Your task to perform on an android device: Open accessibility settings Image 0: 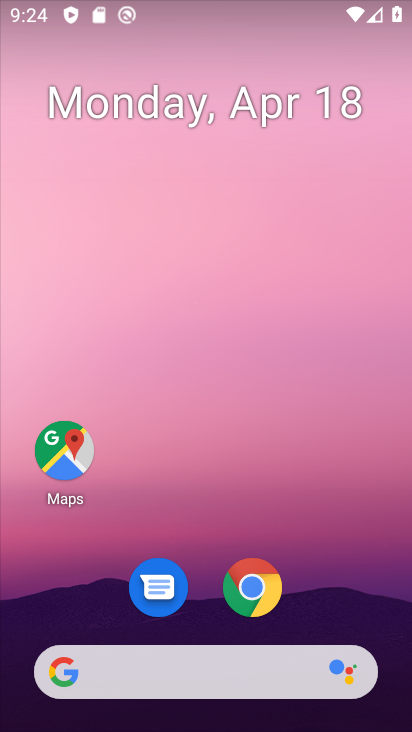
Step 0: drag from (205, 695) to (206, 85)
Your task to perform on an android device: Open accessibility settings Image 1: 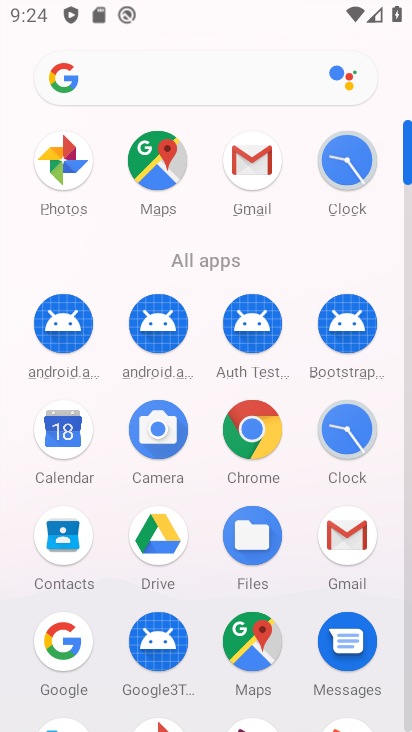
Step 1: drag from (206, 602) to (198, 212)
Your task to perform on an android device: Open accessibility settings Image 2: 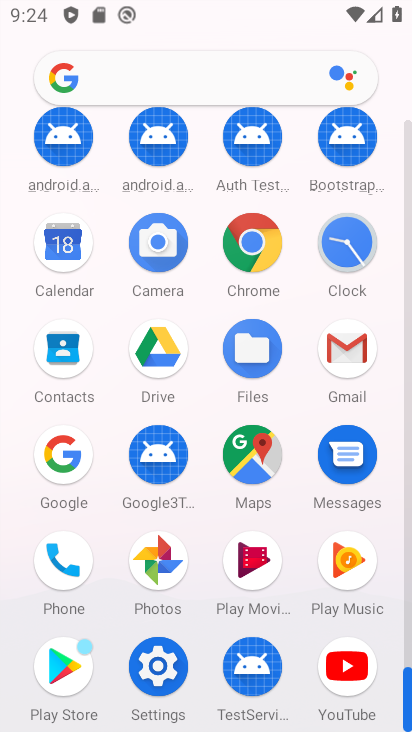
Step 2: click (160, 657)
Your task to perform on an android device: Open accessibility settings Image 3: 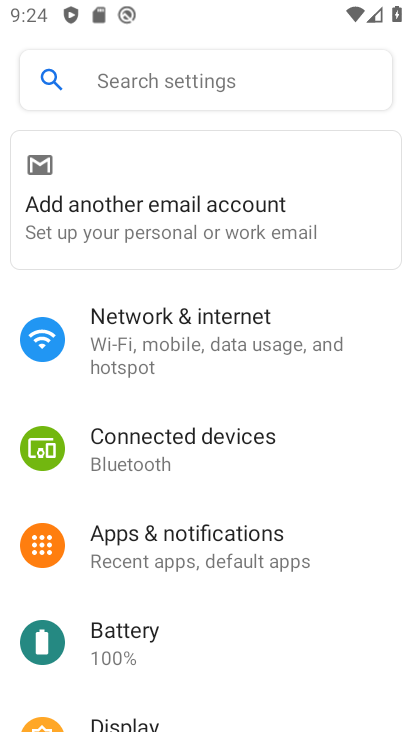
Step 3: drag from (204, 631) to (219, 175)
Your task to perform on an android device: Open accessibility settings Image 4: 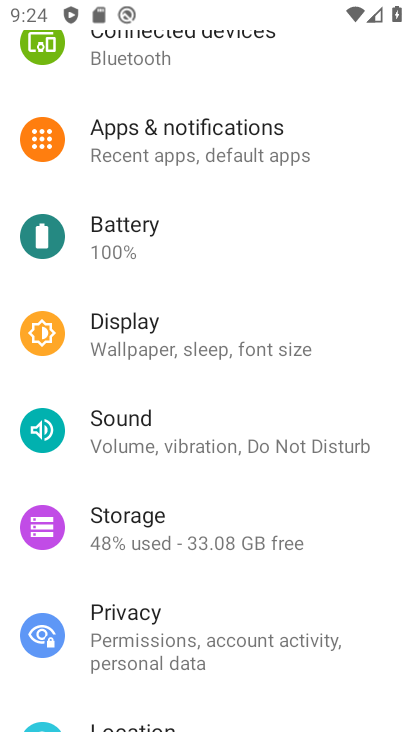
Step 4: drag from (174, 669) to (183, 261)
Your task to perform on an android device: Open accessibility settings Image 5: 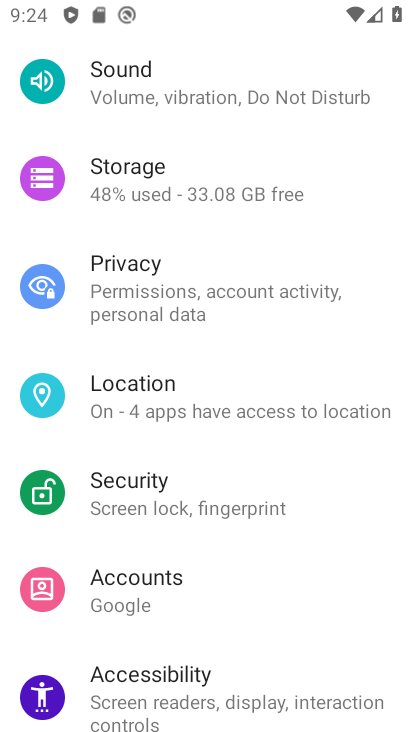
Step 5: click (161, 680)
Your task to perform on an android device: Open accessibility settings Image 6: 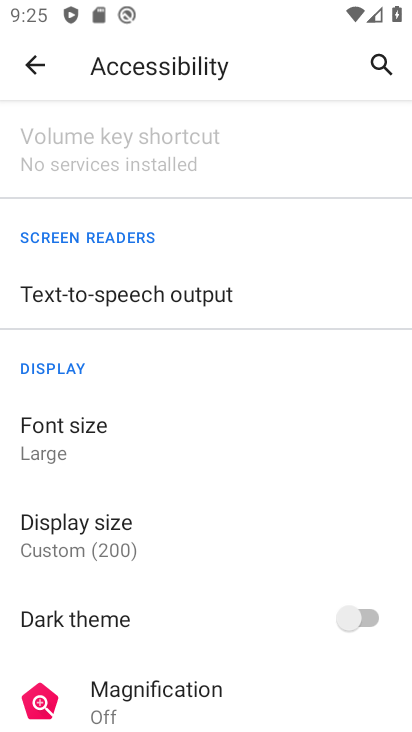
Step 6: task complete